Your task to perform on an android device: turn off location Image 0: 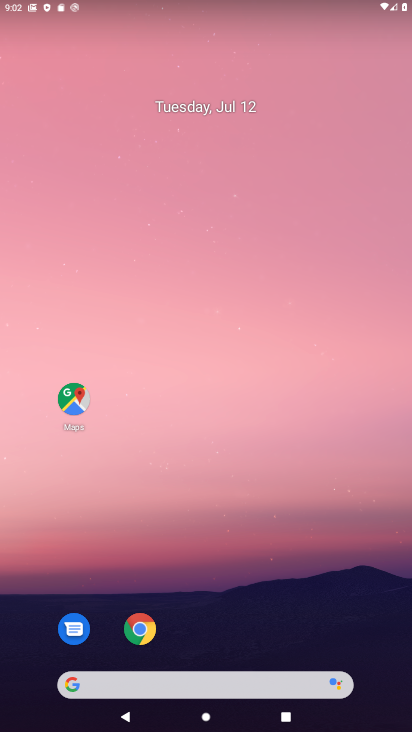
Step 0: drag from (201, 629) to (249, 207)
Your task to perform on an android device: turn off location Image 1: 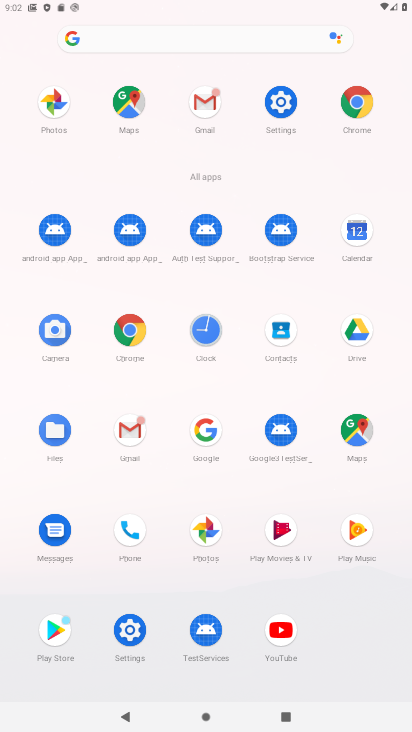
Step 1: click (128, 627)
Your task to perform on an android device: turn off location Image 2: 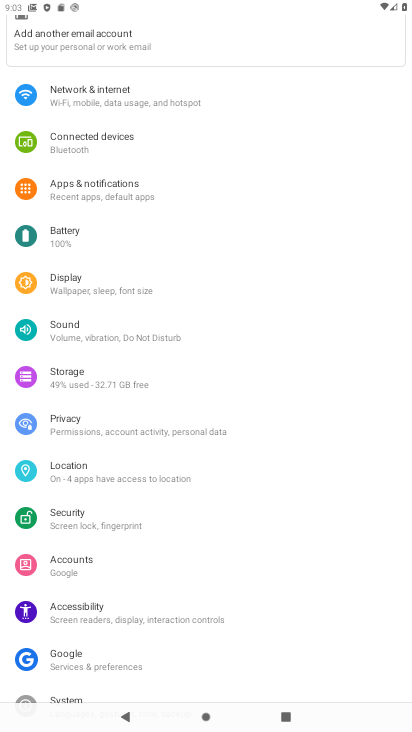
Step 2: click (93, 474)
Your task to perform on an android device: turn off location Image 3: 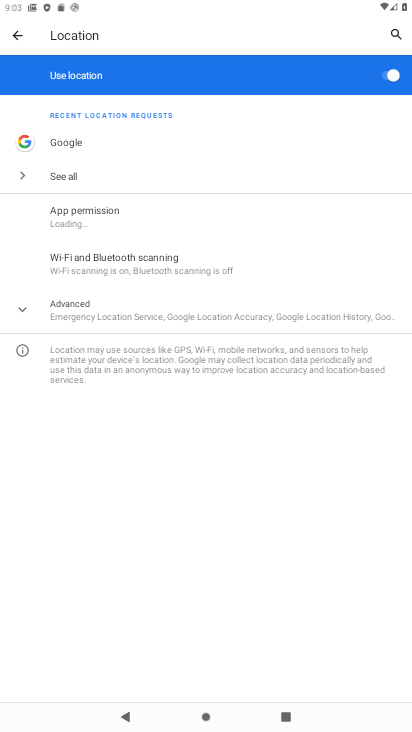
Step 3: click (380, 73)
Your task to perform on an android device: turn off location Image 4: 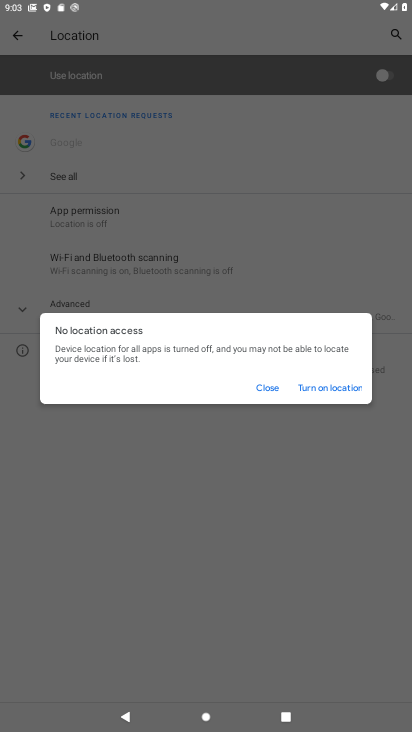
Step 4: click (262, 384)
Your task to perform on an android device: turn off location Image 5: 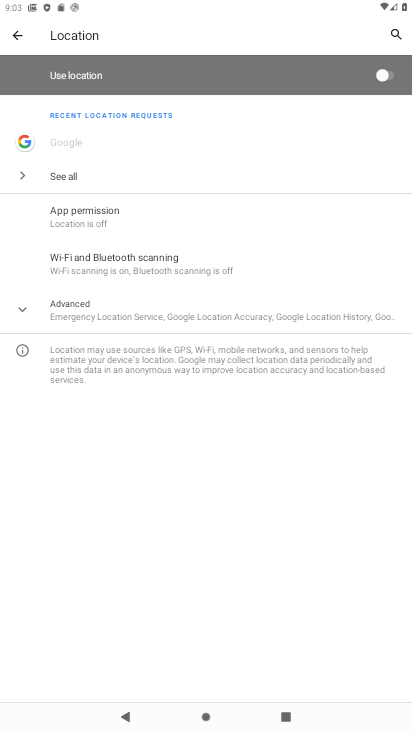
Step 5: task complete